Your task to perform on an android device: Open my contact list Image 0: 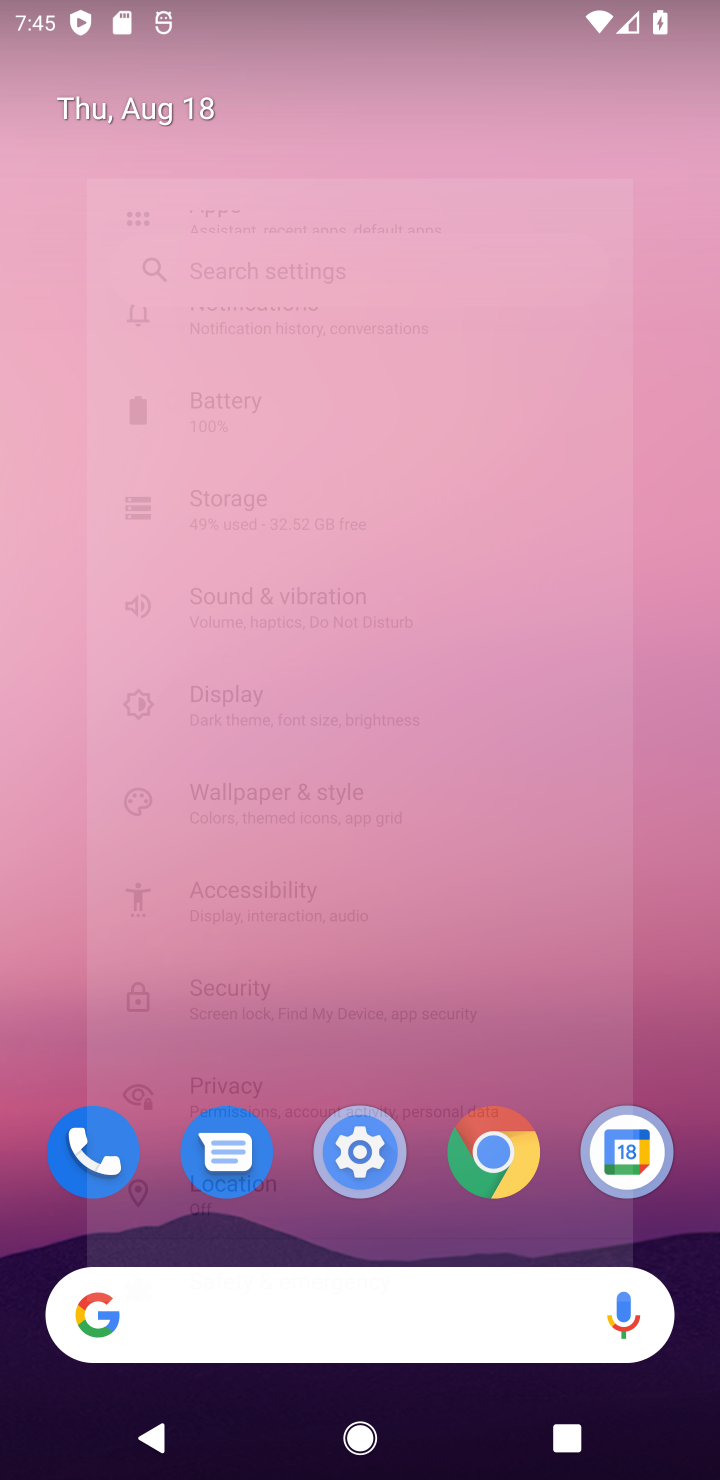
Step 0: press home button
Your task to perform on an android device: Open my contact list Image 1: 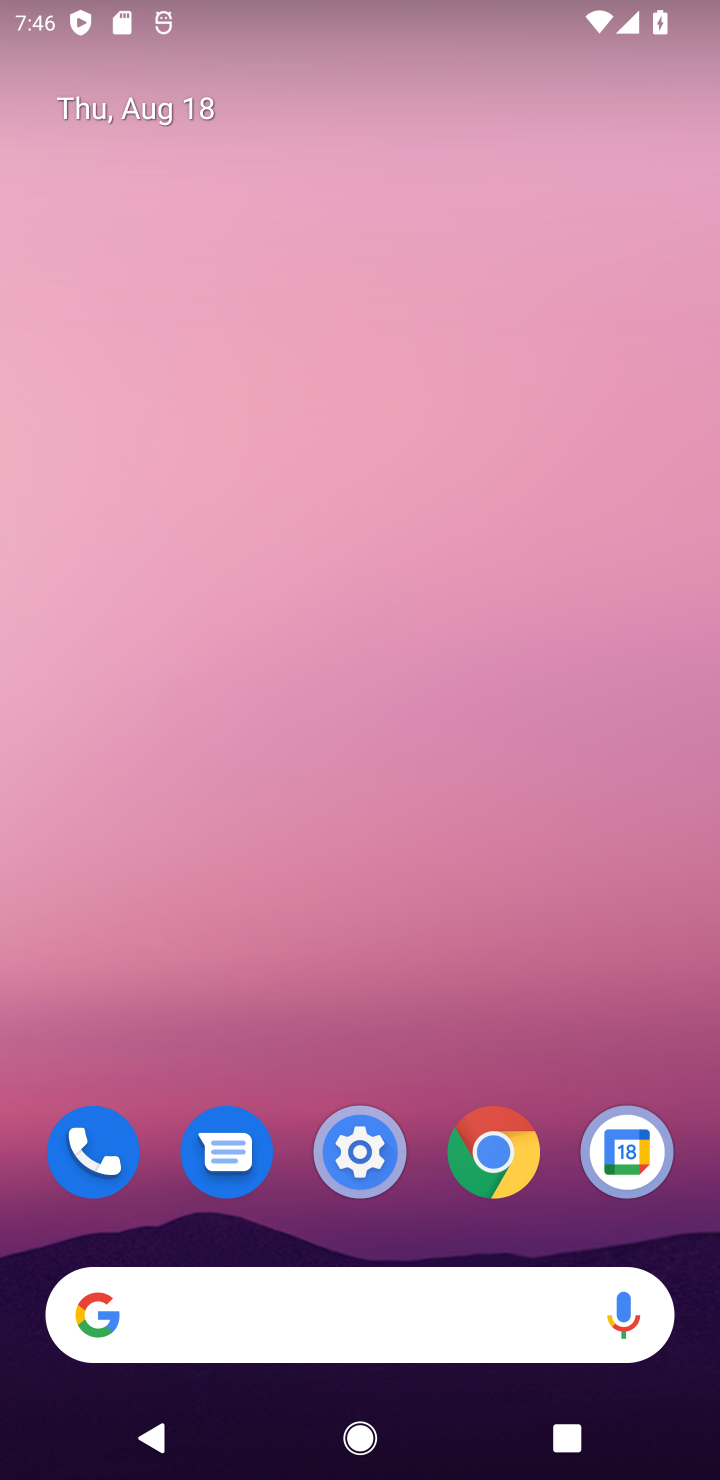
Step 1: drag from (418, 1221) to (386, 206)
Your task to perform on an android device: Open my contact list Image 2: 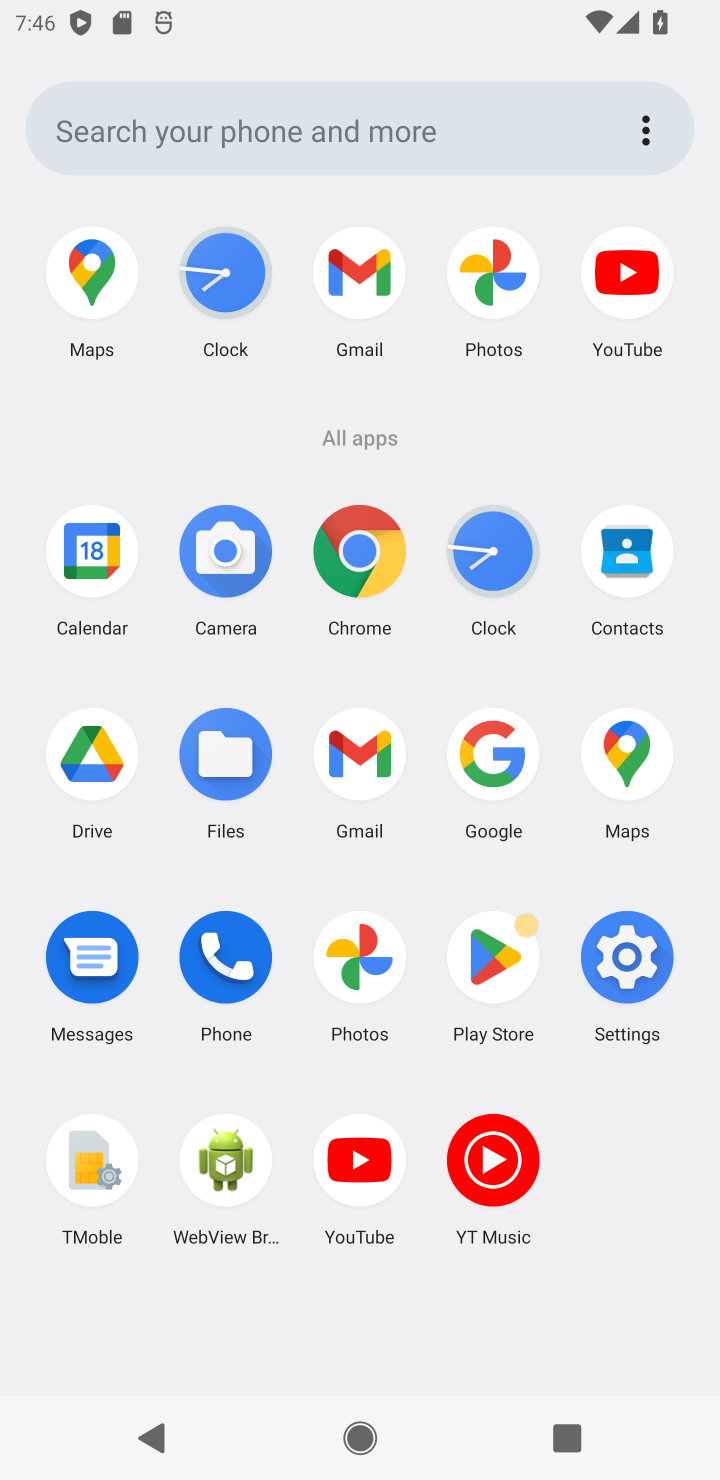
Step 2: click (624, 560)
Your task to perform on an android device: Open my contact list Image 3: 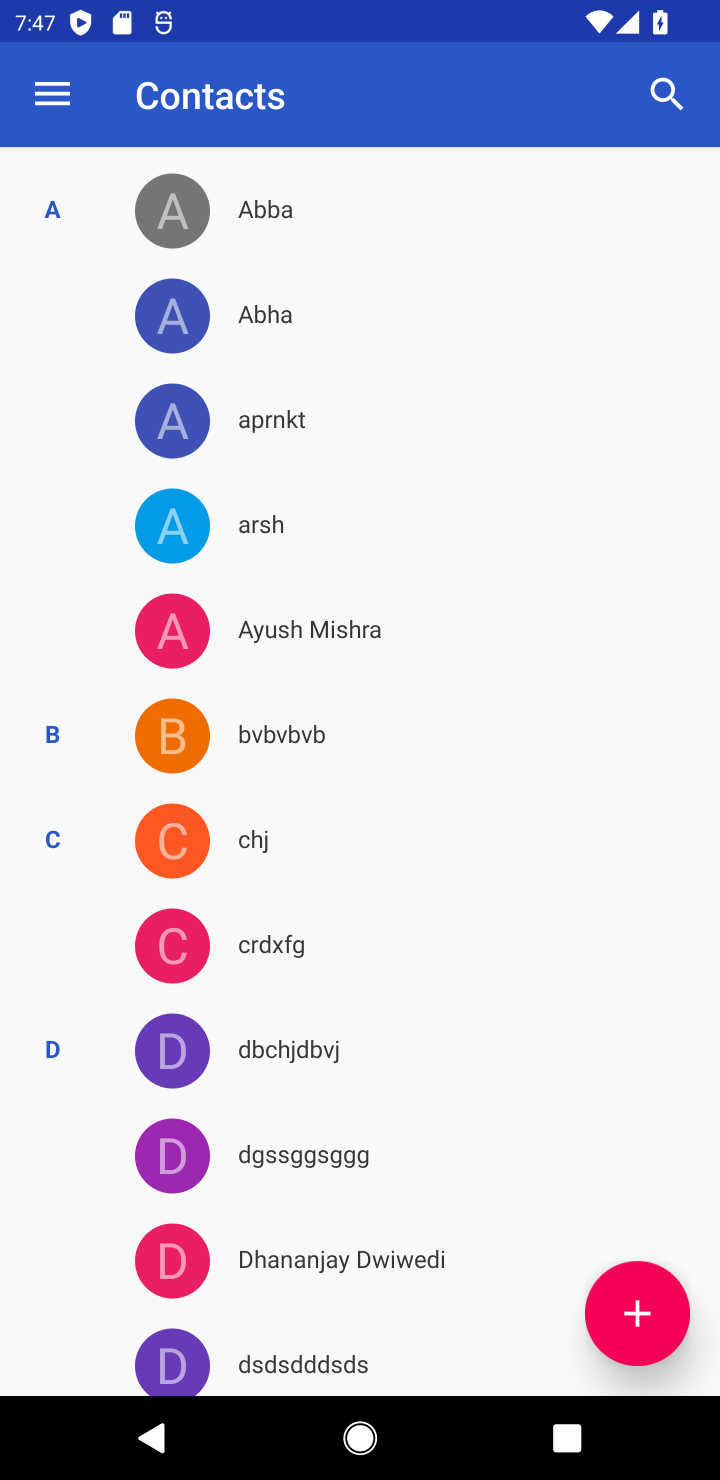
Step 3: task complete